Your task to perform on an android device: Go to Android settings Image 0: 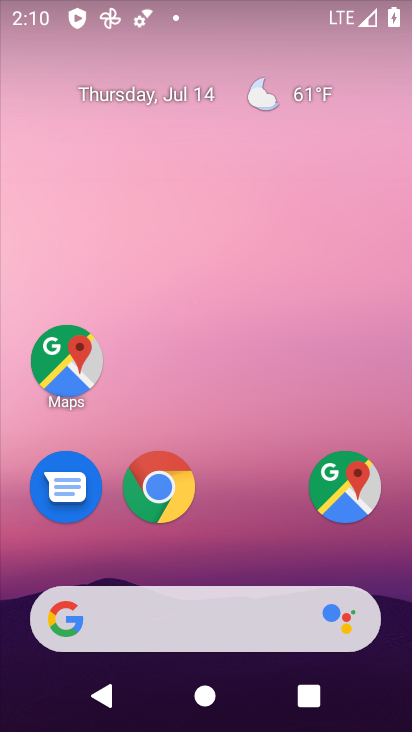
Step 0: drag from (243, 553) to (320, 158)
Your task to perform on an android device: Go to Android settings Image 1: 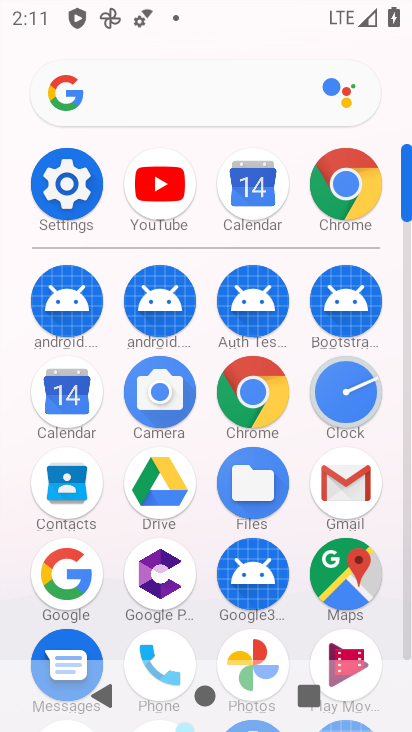
Step 1: click (77, 197)
Your task to perform on an android device: Go to Android settings Image 2: 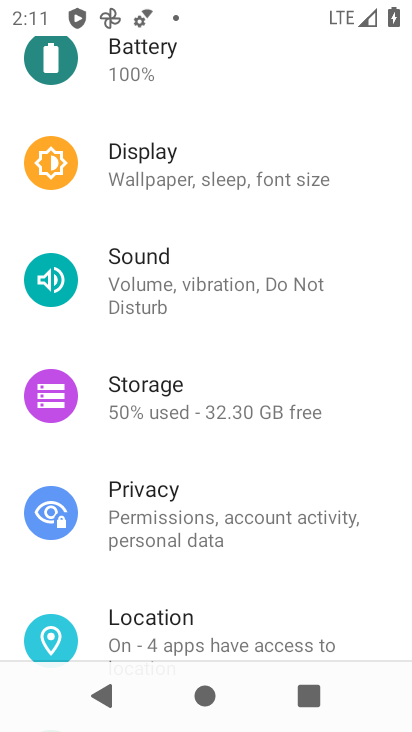
Step 2: click (350, 286)
Your task to perform on an android device: Go to Android settings Image 3: 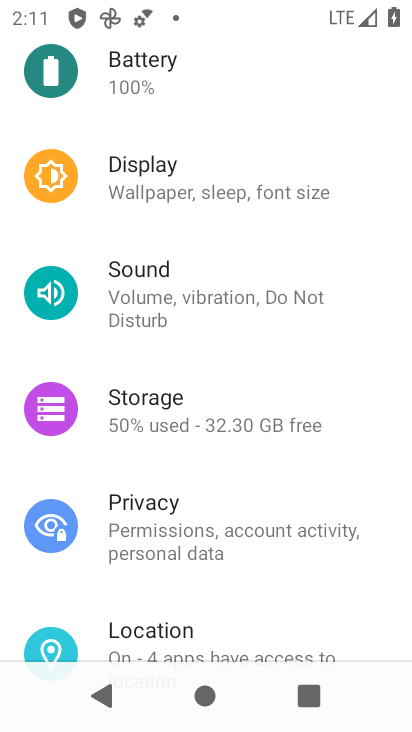
Step 3: drag from (367, 232) to (372, 312)
Your task to perform on an android device: Go to Android settings Image 4: 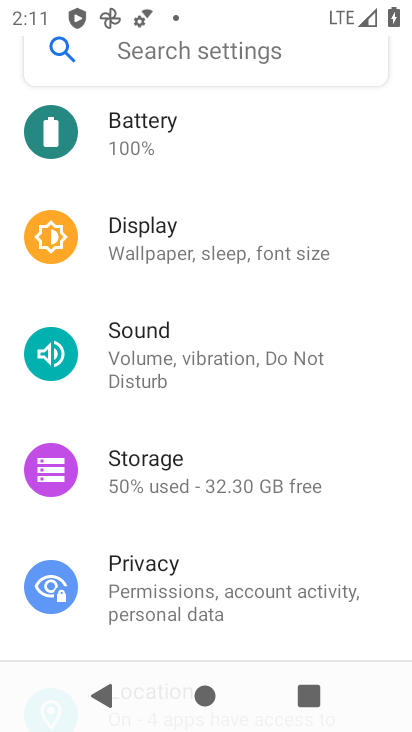
Step 4: drag from (369, 245) to (370, 323)
Your task to perform on an android device: Go to Android settings Image 5: 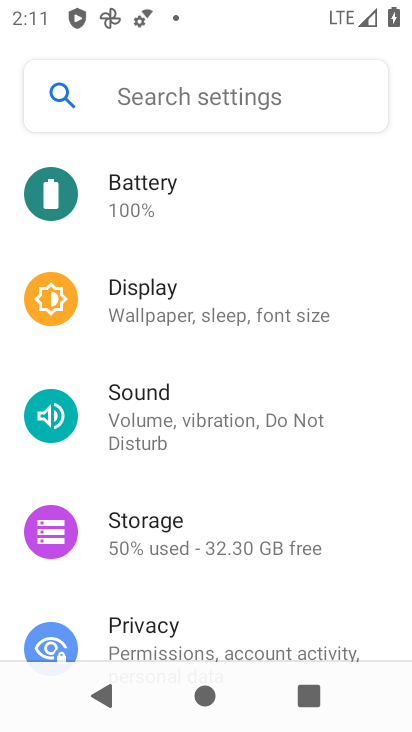
Step 5: drag from (359, 247) to (371, 338)
Your task to perform on an android device: Go to Android settings Image 6: 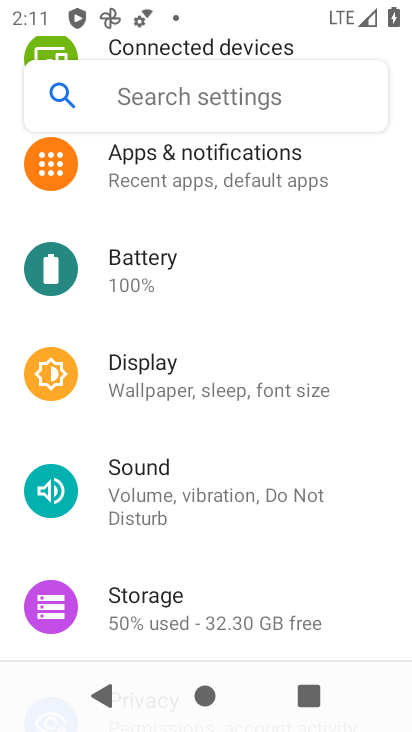
Step 6: drag from (371, 248) to (380, 333)
Your task to perform on an android device: Go to Android settings Image 7: 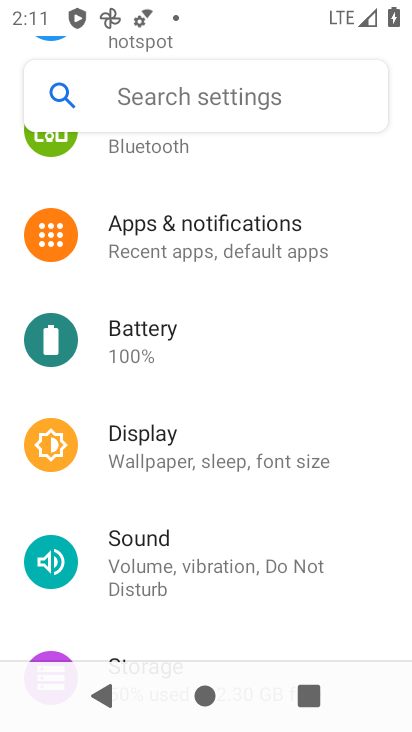
Step 7: drag from (368, 297) to (383, 408)
Your task to perform on an android device: Go to Android settings Image 8: 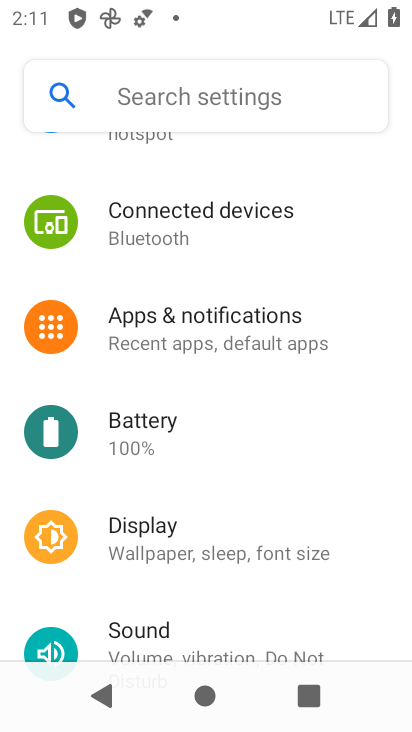
Step 8: drag from (364, 316) to (363, 429)
Your task to perform on an android device: Go to Android settings Image 9: 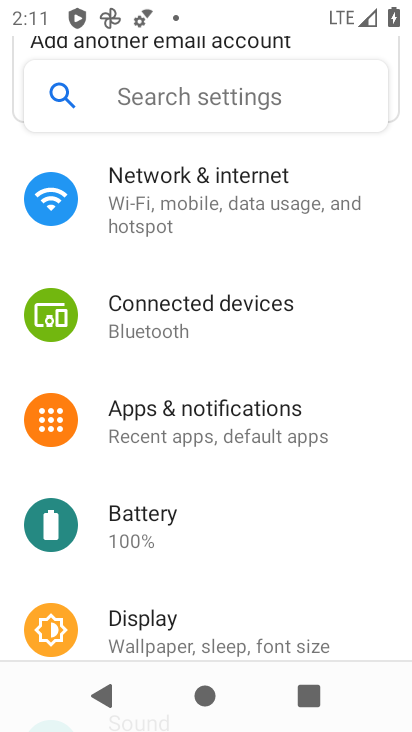
Step 9: drag from (348, 310) to (353, 401)
Your task to perform on an android device: Go to Android settings Image 10: 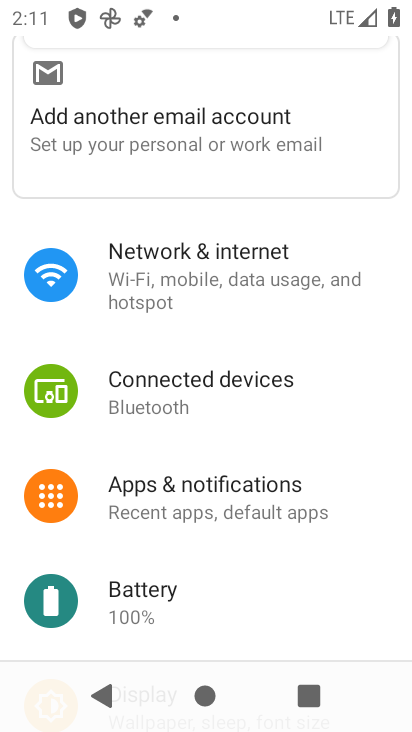
Step 10: drag from (362, 511) to (365, 428)
Your task to perform on an android device: Go to Android settings Image 11: 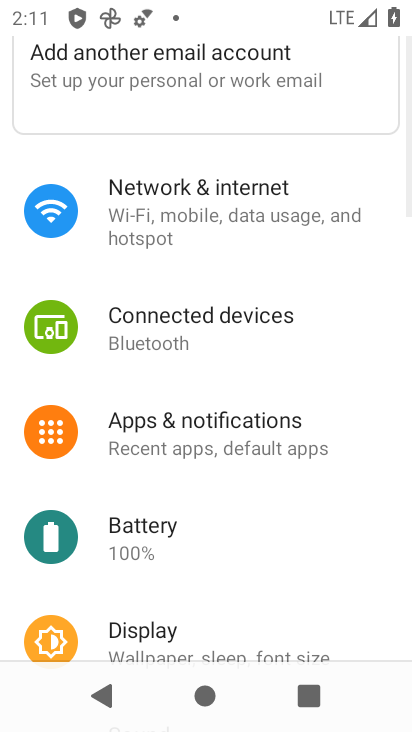
Step 11: drag from (366, 525) to (369, 431)
Your task to perform on an android device: Go to Android settings Image 12: 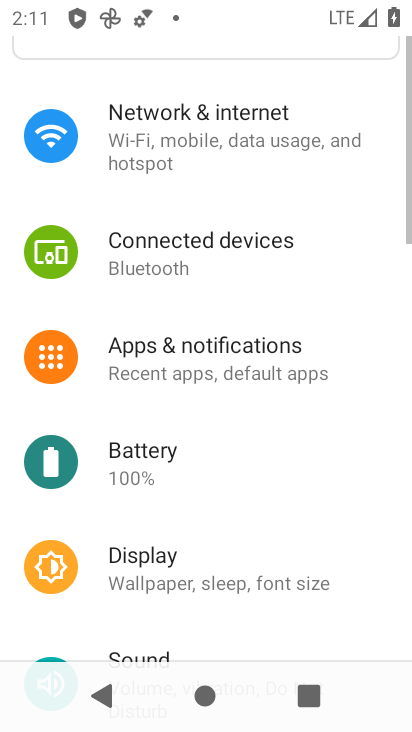
Step 12: drag from (373, 513) to (373, 451)
Your task to perform on an android device: Go to Android settings Image 13: 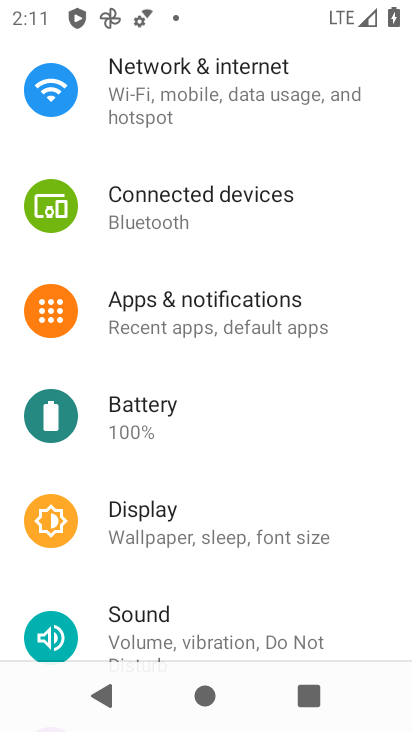
Step 13: drag from (379, 516) to (377, 427)
Your task to perform on an android device: Go to Android settings Image 14: 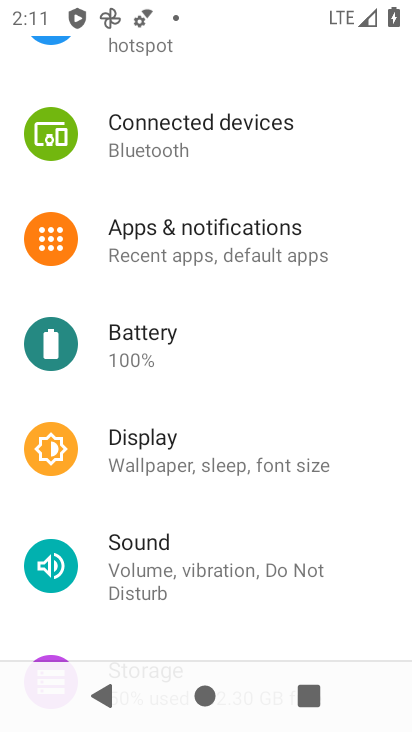
Step 14: drag from (372, 517) to (369, 436)
Your task to perform on an android device: Go to Android settings Image 15: 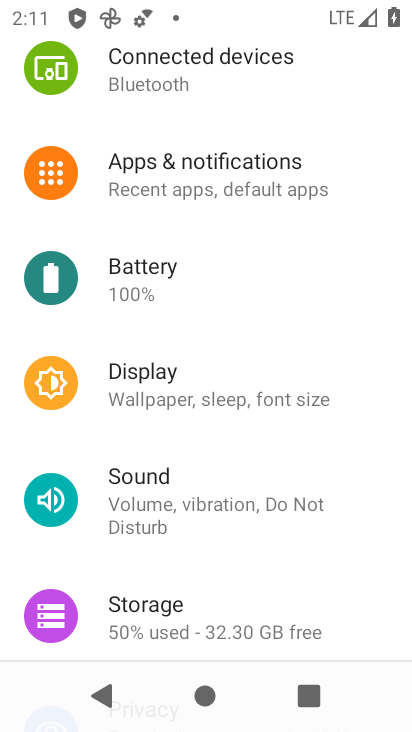
Step 15: drag from (369, 535) to (371, 457)
Your task to perform on an android device: Go to Android settings Image 16: 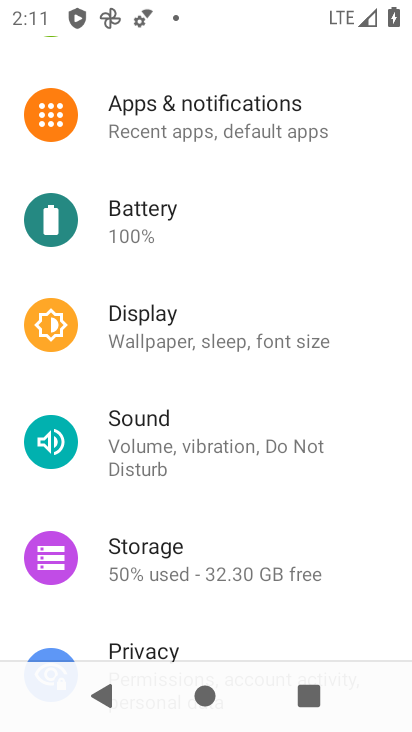
Step 16: drag from (372, 518) to (370, 444)
Your task to perform on an android device: Go to Android settings Image 17: 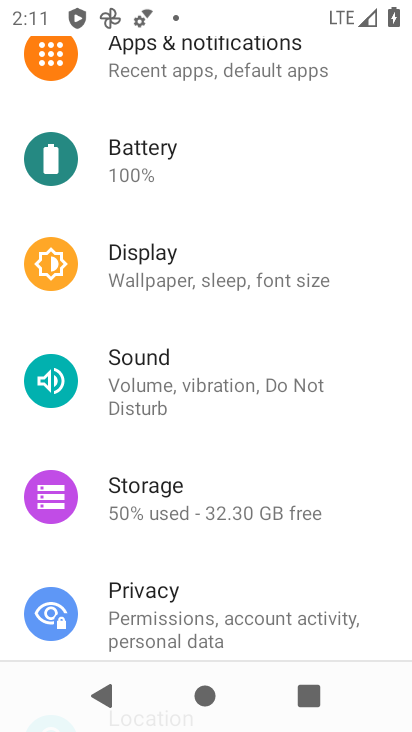
Step 17: drag from (368, 505) to (362, 425)
Your task to perform on an android device: Go to Android settings Image 18: 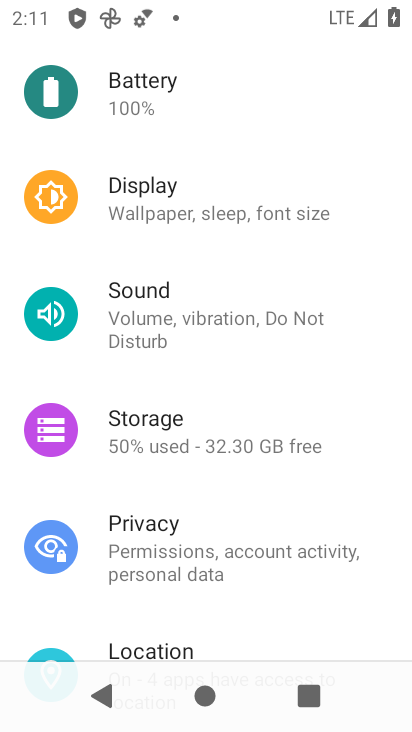
Step 18: drag from (361, 498) to (356, 434)
Your task to perform on an android device: Go to Android settings Image 19: 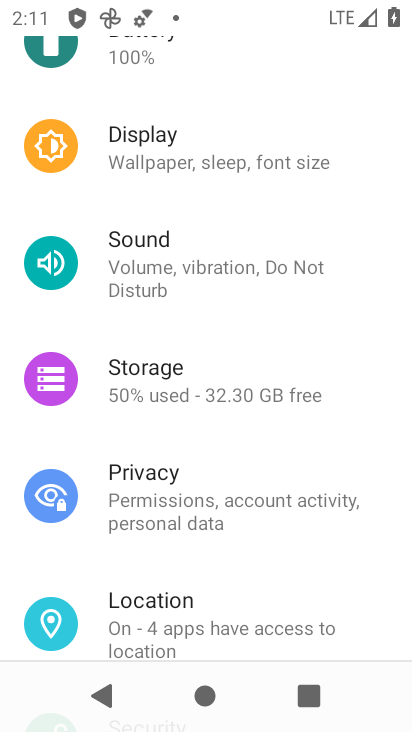
Step 19: drag from (358, 512) to (360, 440)
Your task to perform on an android device: Go to Android settings Image 20: 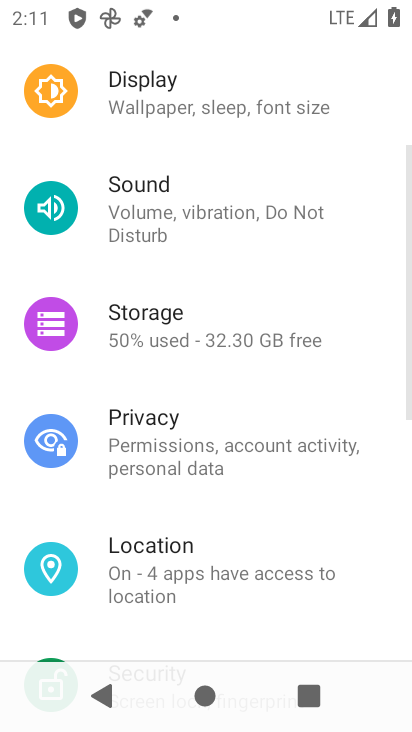
Step 20: drag from (357, 514) to (360, 437)
Your task to perform on an android device: Go to Android settings Image 21: 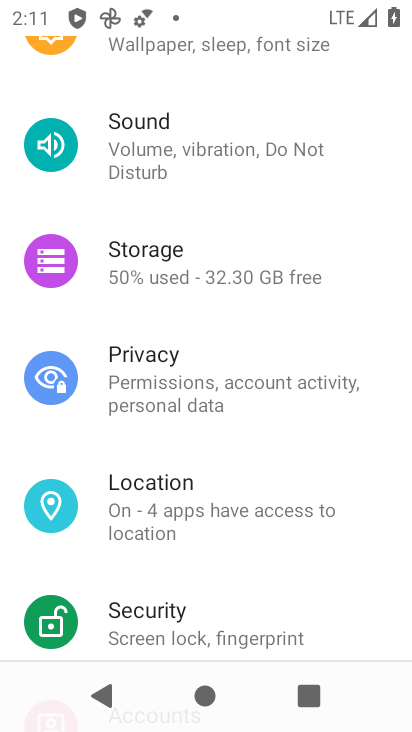
Step 21: drag from (367, 501) to (387, 306)
Your task to perform on an android device: Go to Android settings Image 22: 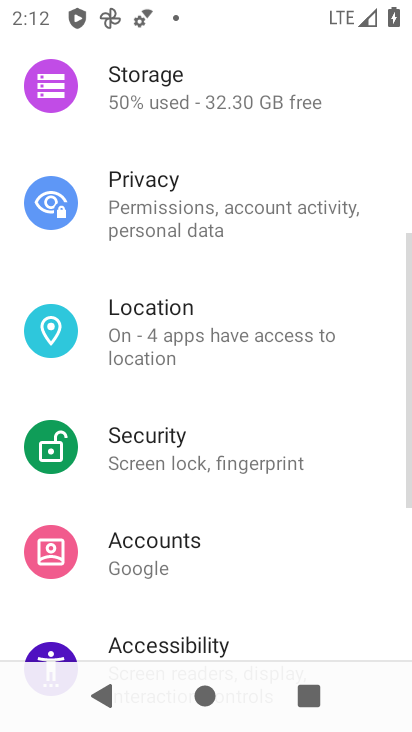
Step 22: drag from (348, 491) to (366, 314)
Your task to perform on an android device: Go to Android settings Image 23: 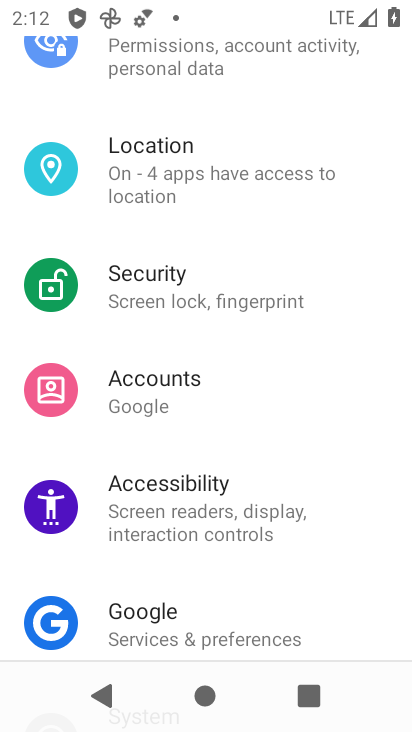
Step 23: drag from (341, 456) to (348, 334)
Your task to perform on an android device: Go to Android settings Image 24: 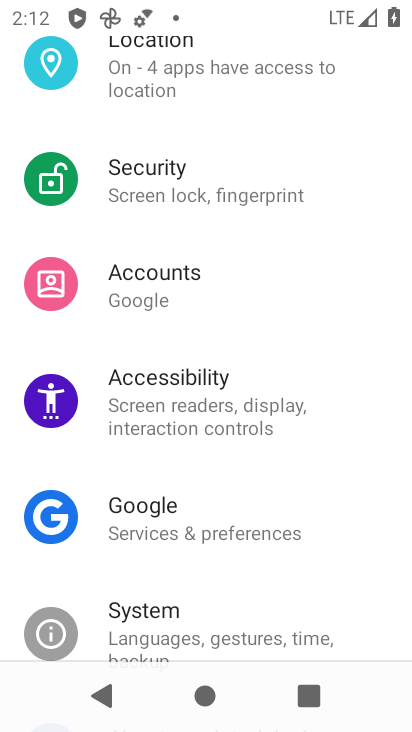
Step 24: drag from (337, 492) to (366, 313)
Your task to perform on an android device: Go to Android settings Image 25: 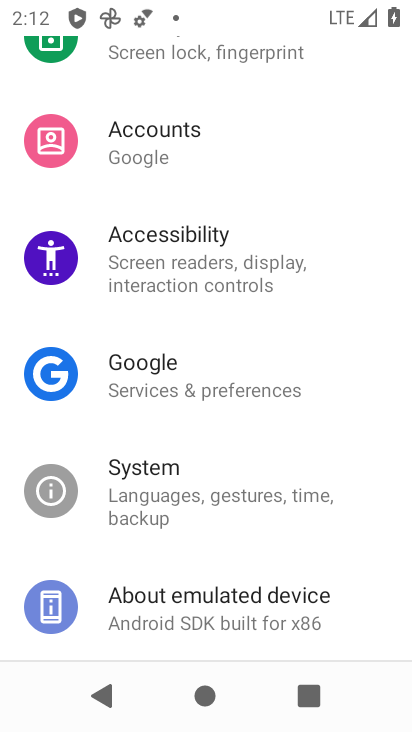
Step 25: click (330, 475)
Your task to perform on an android device: Go to Android settings Image 26: 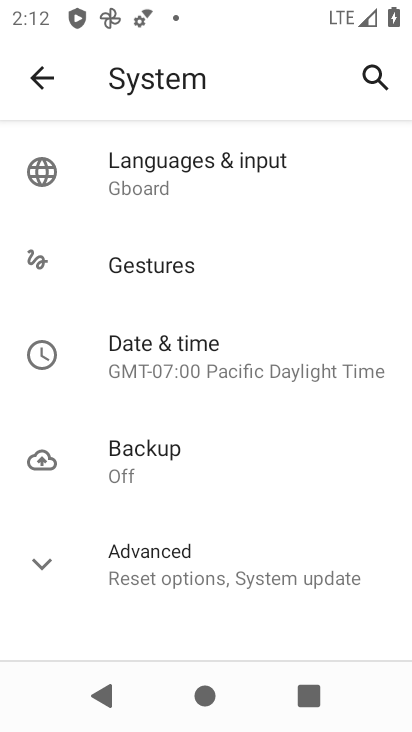
Step 26: click (325, 548)
Your task to perform on an android device: Go to Android settings Image 27: 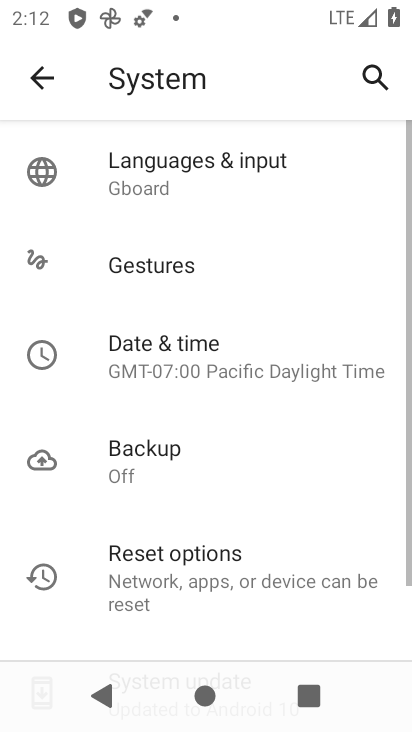
Step 27: task complete